Your task to perform on an android device: When is my next appointment? Image 0: 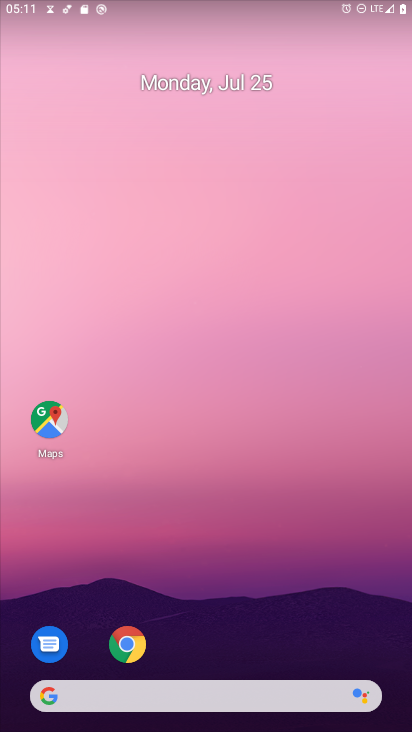
Step 0: press home button
Your task to perform on an android device: When is my next appointment? Image 1: 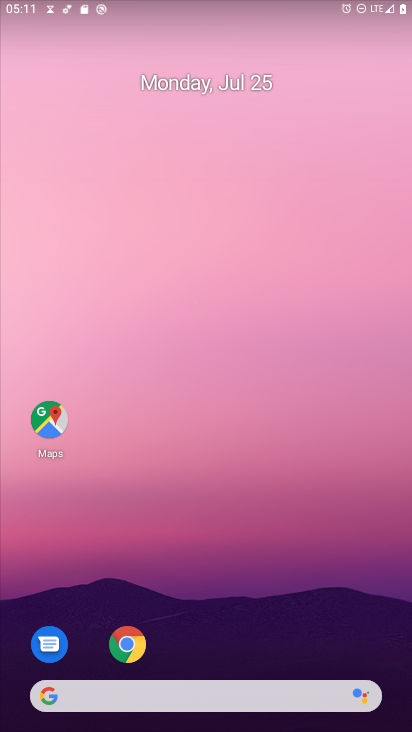
Step 1: drag from (314, 605) to (338, 121)
Your task to perform on an android device: When is my next appointment? Image 2: 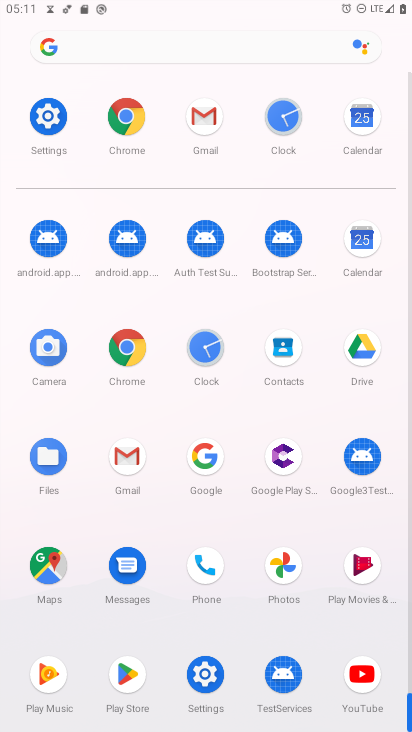
Step 2: click (356, 248)
Your task to perform on an android device: When is my next appointment? Image 3: 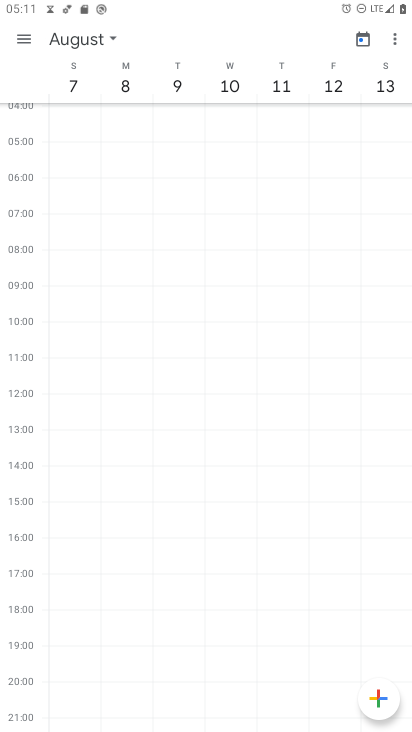
Step 3: click (19, 38)
Your task to perform on an android device: When is my next appointment? Image 4: 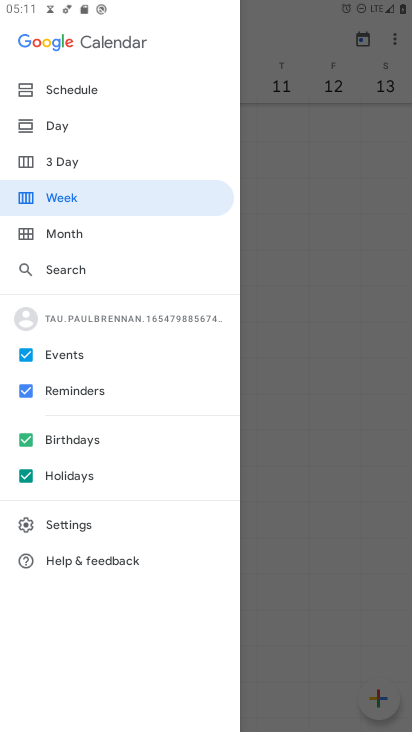
Step 4: click (57, 89)
Your task to perform on an android device: When is my next appointment? Image 5: 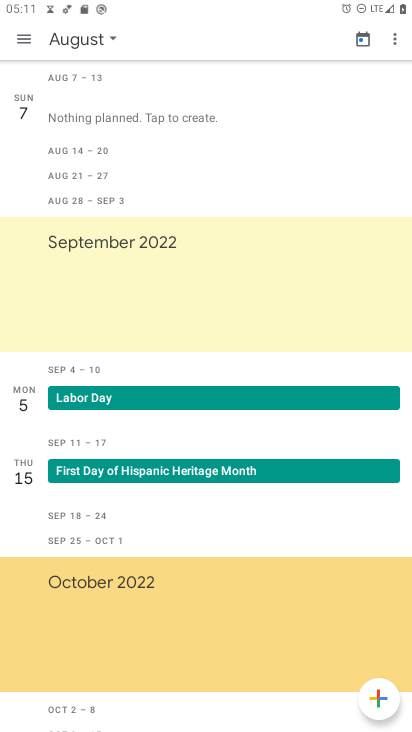
Step 5: task complete